Your task to perform on an android device: see sites visited before in the chrome app Image 0: 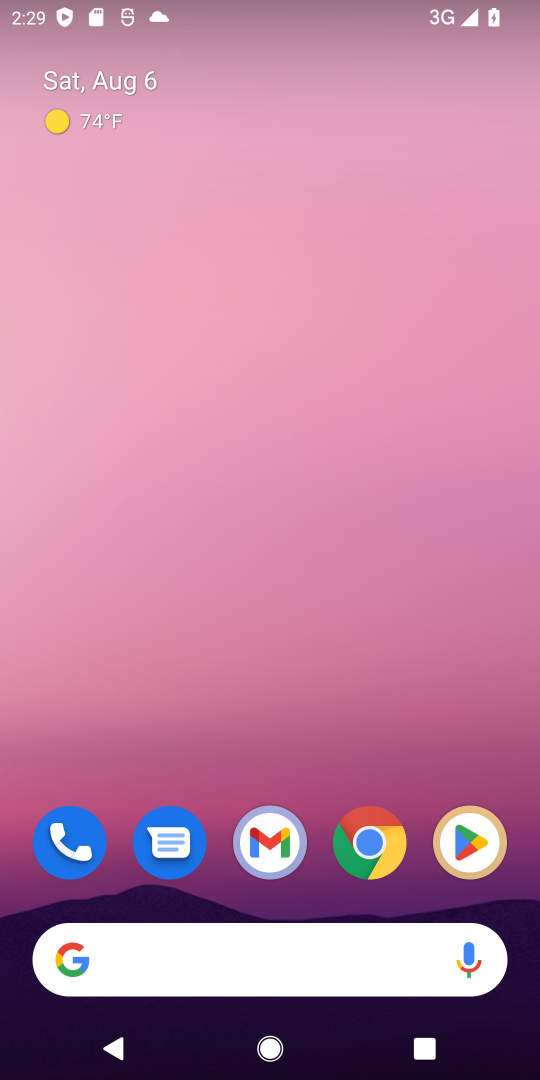
Step 0: drag from (224, 620) to (523, 351)
Your task to perform on an android device: see sites visited before in the chrome app Image 1: 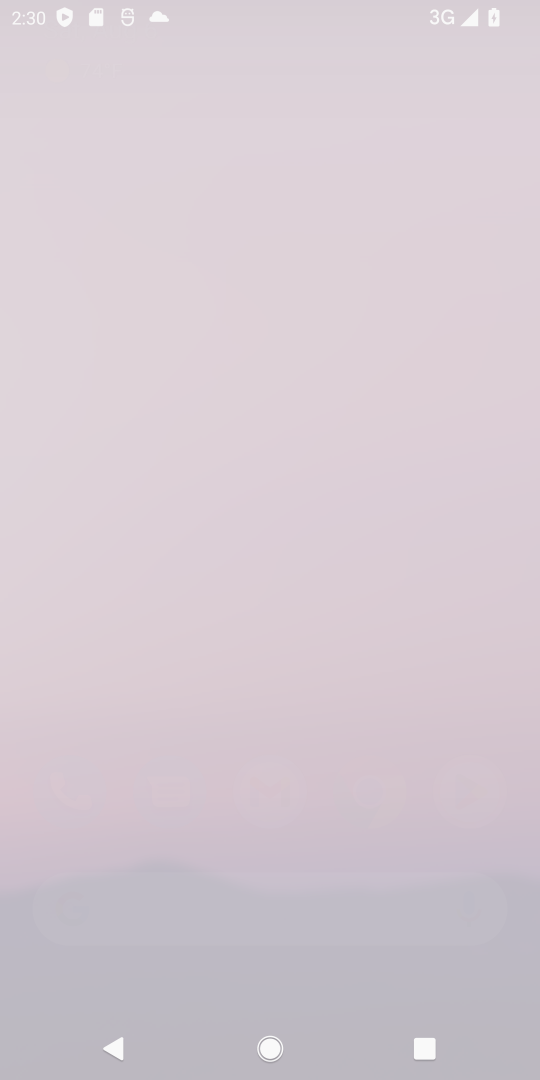
Step 1: click (254, 420)
Your task to perform on an android device: see sites visited before in the chrome app Image 2: 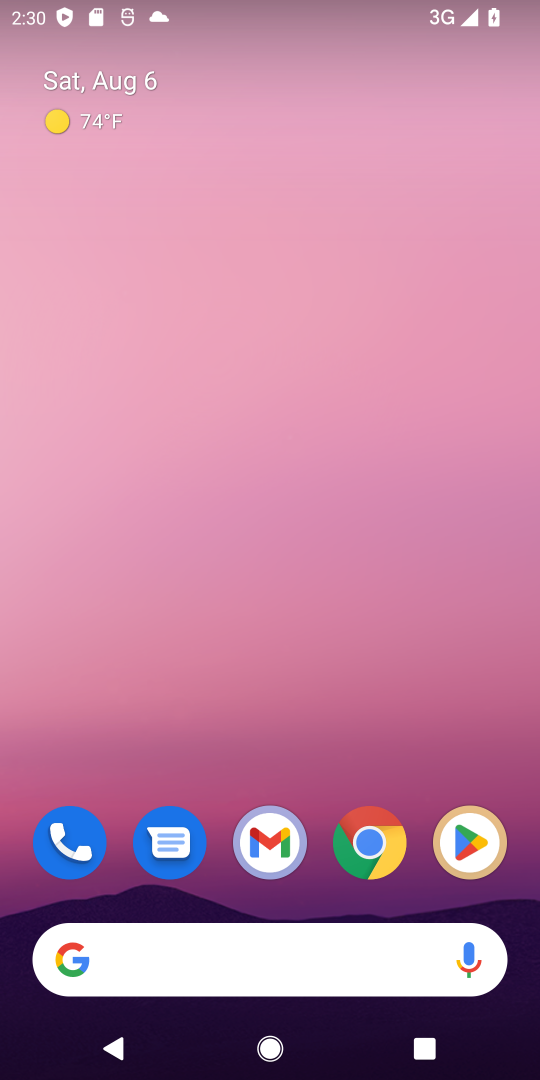
Step 2: drag from (202, 848) to (316, 99)
Your task to perform on an android device: see sites visited before in the chrome app Image 3: 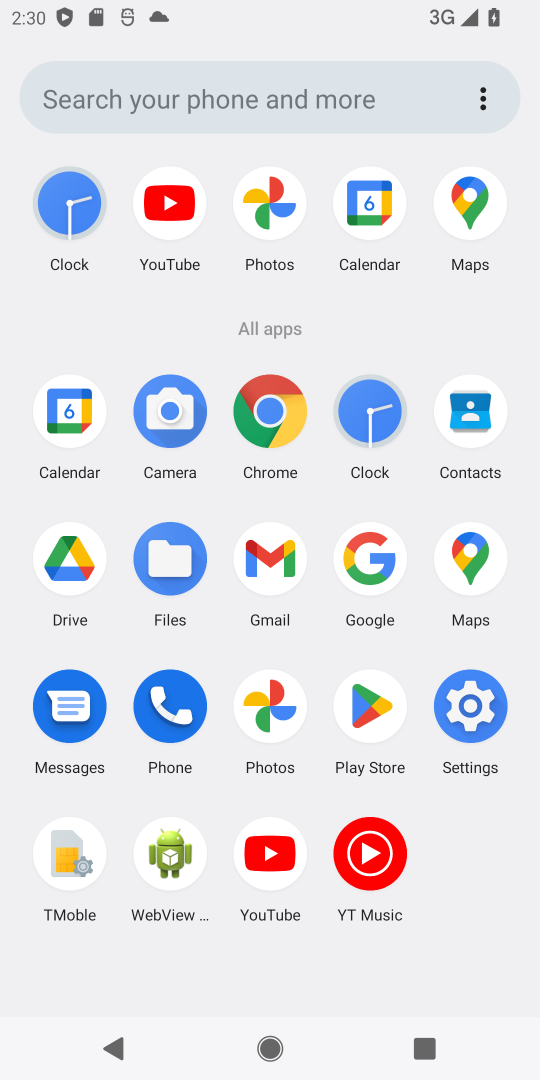
Step 3: click (263, 417)
Your task to perform on an android device: see sites visited before in the chrome app Image 4: 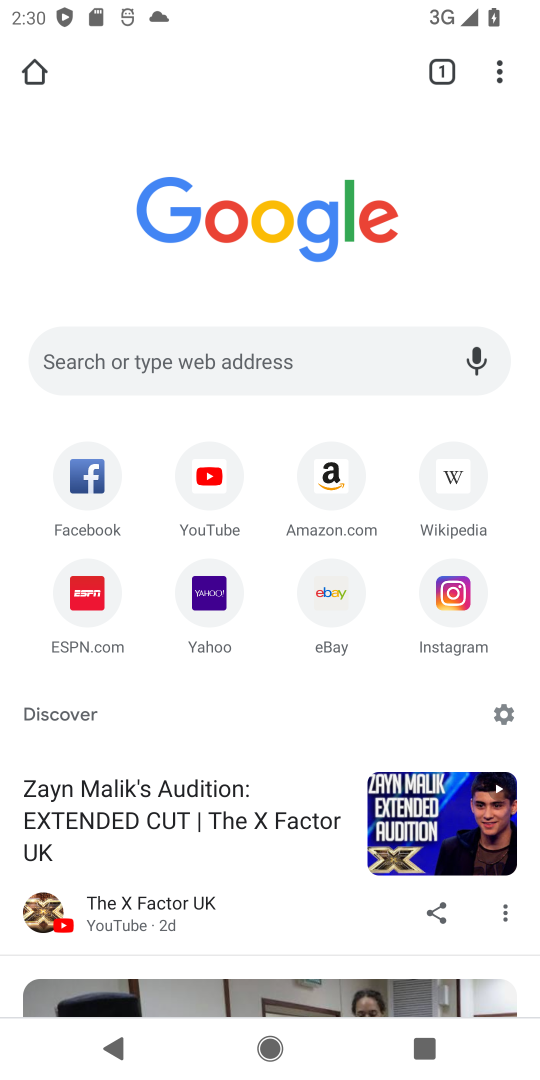
Step 4: drag from (504, 89) to (293, 507)
Your task to perform on an android device: see sites visited before in the chrome app Image 5: 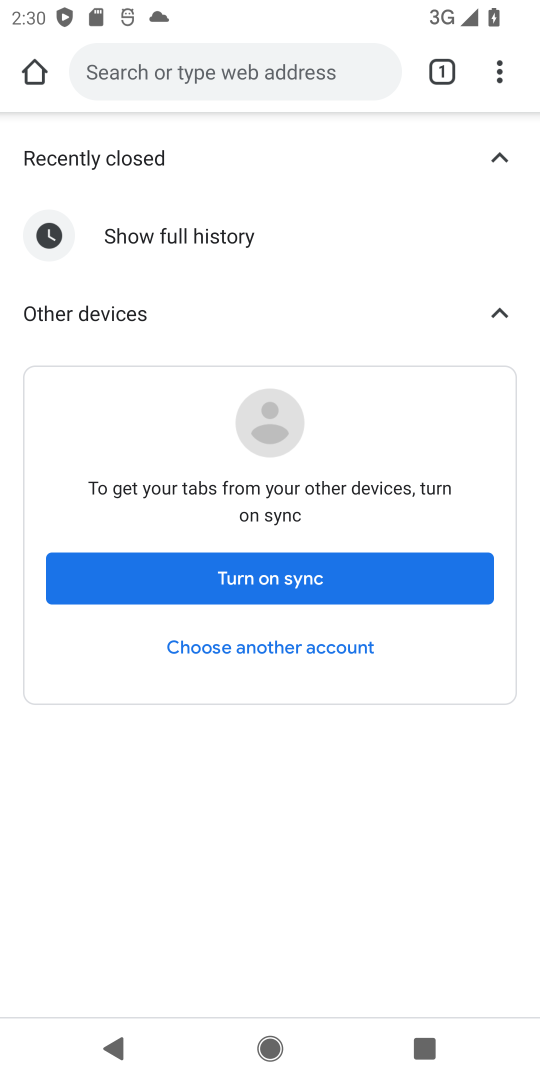
Step 5: click (262, 589)
Your task to perform on an android device: see sites visited before in the chrome app Image 6: 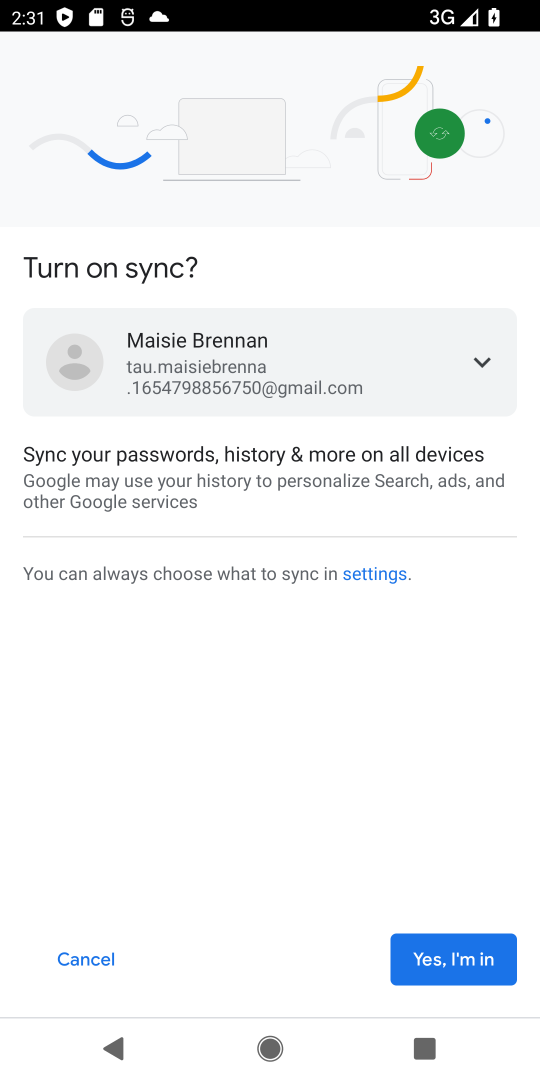
Step 6: click (478, 969)
Your task to perform on an android device: see sites visited before in the chrome app Image 7: 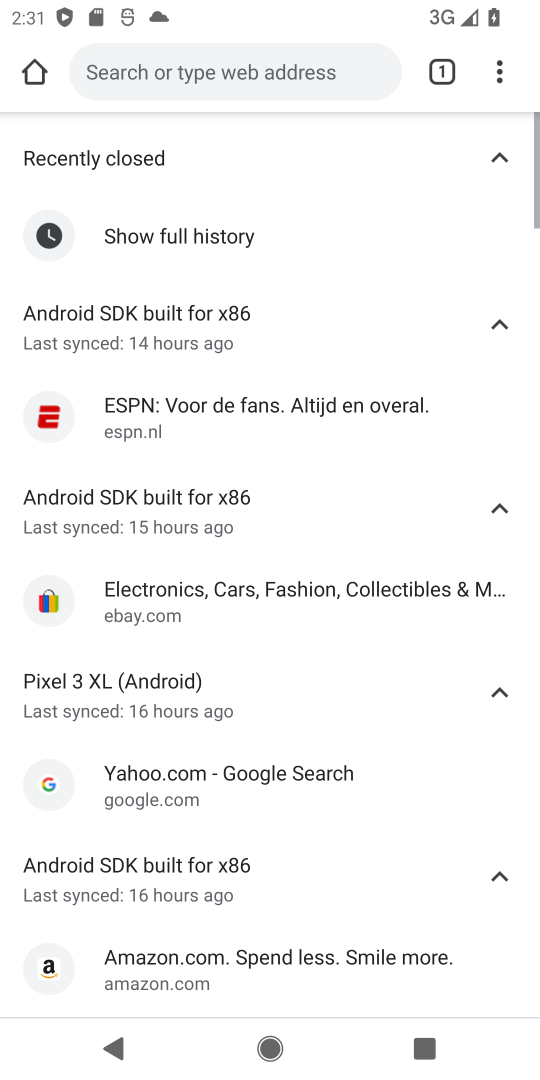
Step 7: task complete